Your task to perform on an android device: turn on the 12-hour format for clock Image 0: 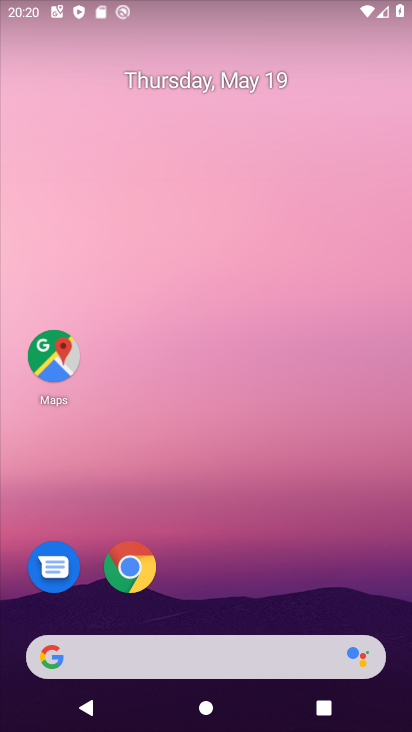
Step 0: drag from (236, 606) to (326, 9)
Your task to perform on an android device: turn on the 12-hour format for clock Image 1: 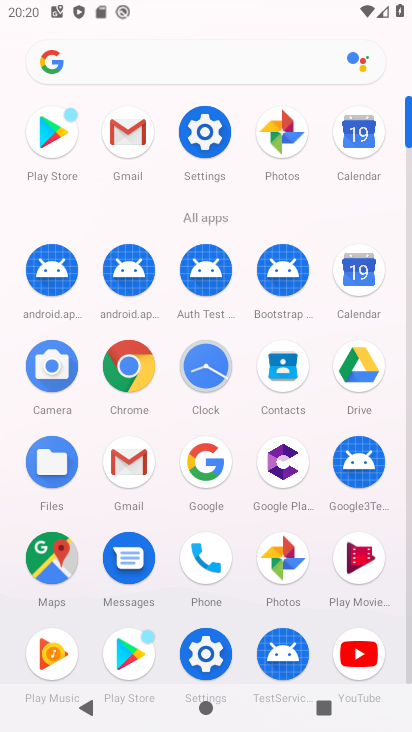
Step 1: click (203, 141)
Your task to perform on an android device: turn on the 12-hour format for clock Image 2: 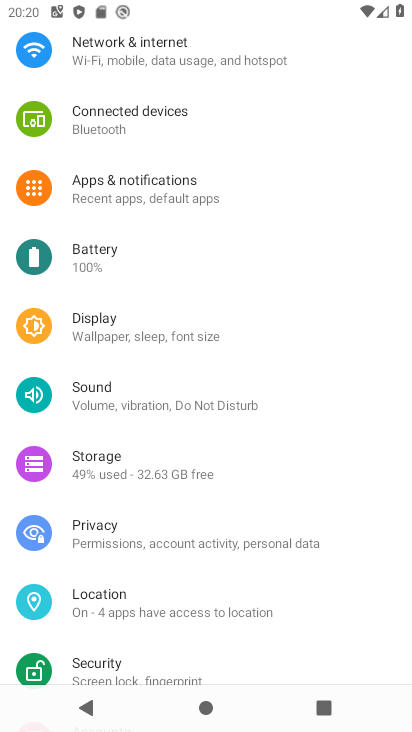
Step 2: drag from (218, 610) to (266, 203)
Your task to perform on an android device: turn on the 12-hour format for clock Image 3: 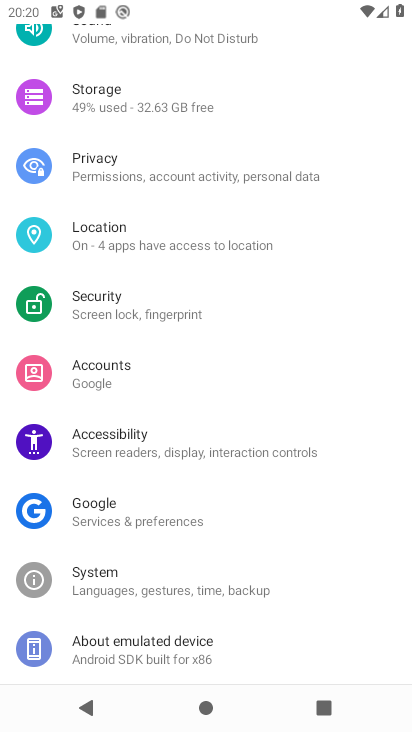
Step 3: click (151, 594)
Your task to perform on an android device: turn on the 12-hour format for clock Image 4: 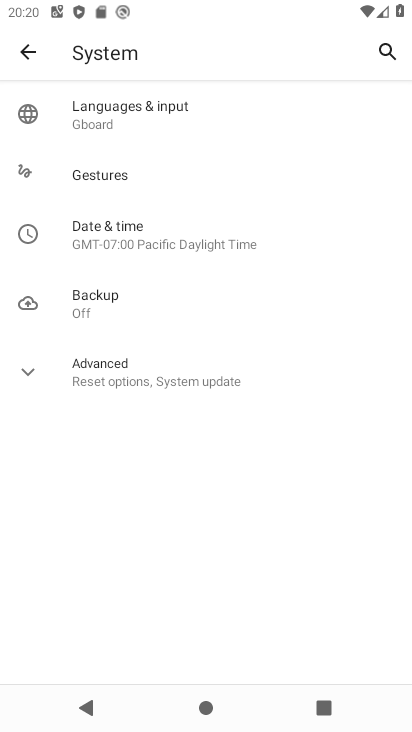
Step 4: click (135, 241)
Your task to perform on an android device: turn on the 12-hour format for clock Image 5: 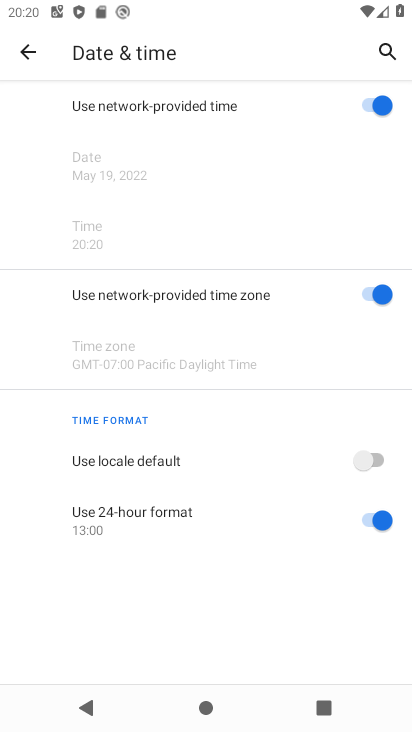
Step 5: click (383, 458)
Your task to perform on an android device: turn on the 12-hour format for clock Image 6: 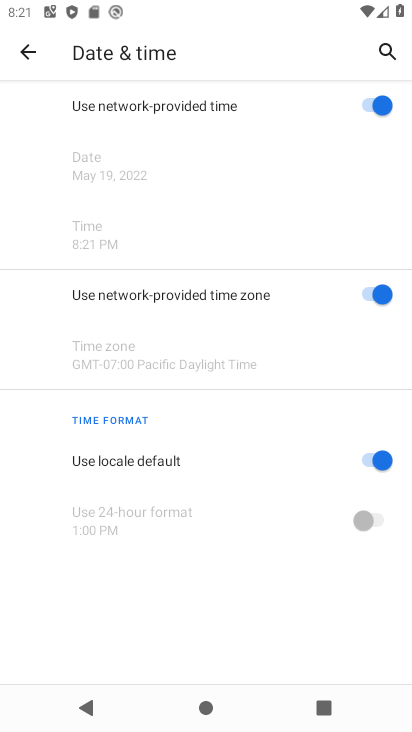
Step 6: task complete